Your task to perform on an android device: change notification settings in the gmail app Image 0: 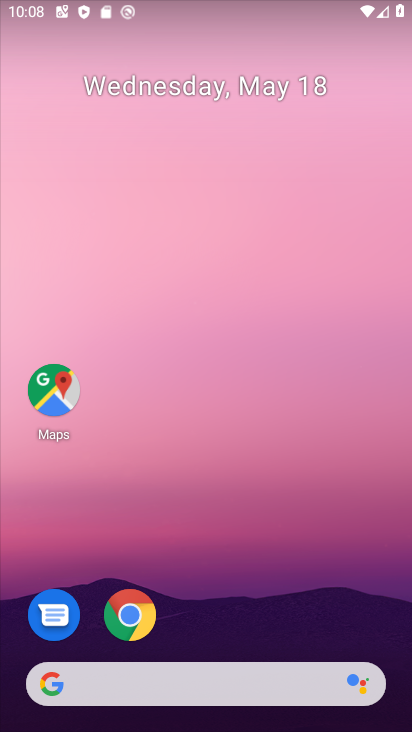
Step 0: drag from (254, 608) to (333, 108)
Your task to perform on an android device: change notification settings in the gmail app Image 1: 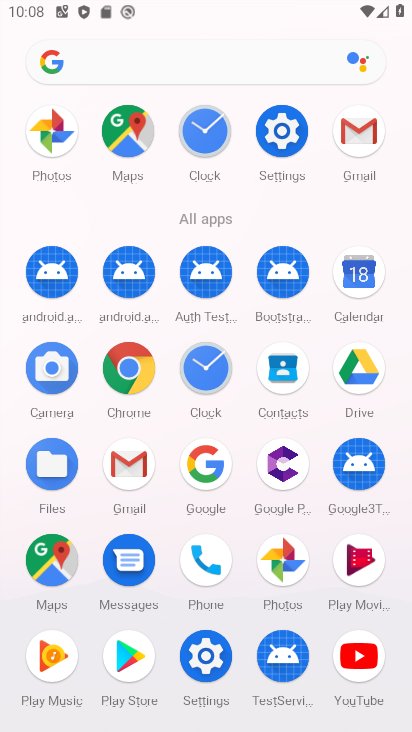
Step 1: click (363, 135)
Your task to perform on an android device: change notification settings in the gmail app Image 2: 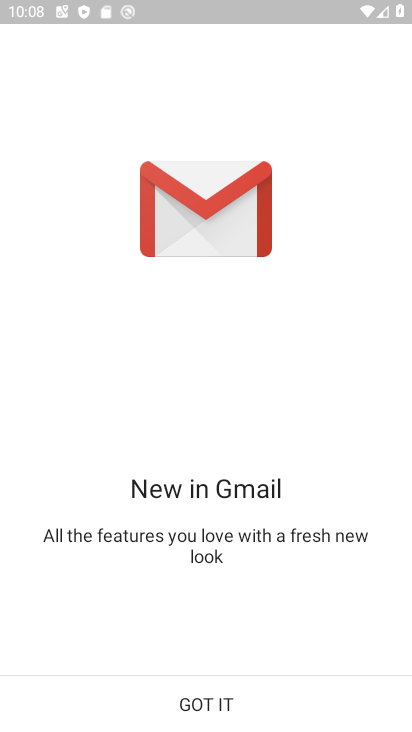
Step 2: click (292, 711)
Your task to perform on an android device: change notification settings in the gmail app Image 3: 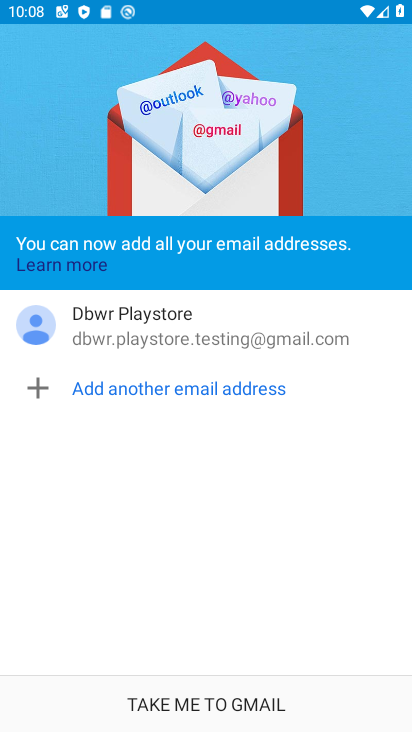
Step 3: click (251, 699)
Your task to perform on an android device: change notification settings in the gmail app Image 4: 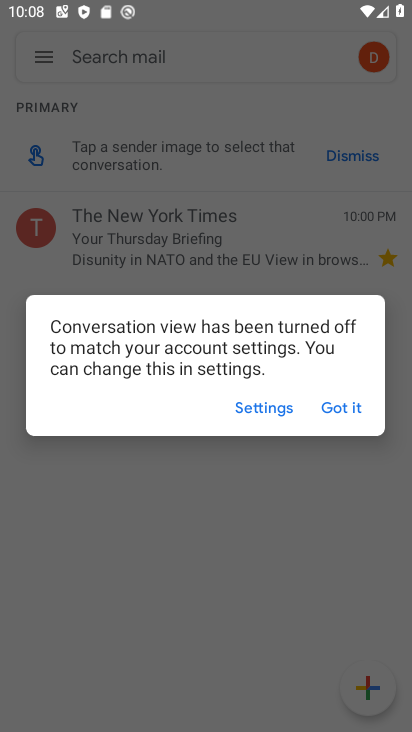
Step 4: click (356, 397)
Your task to perform on an android device: change notification settings in the gmail app Image 5: 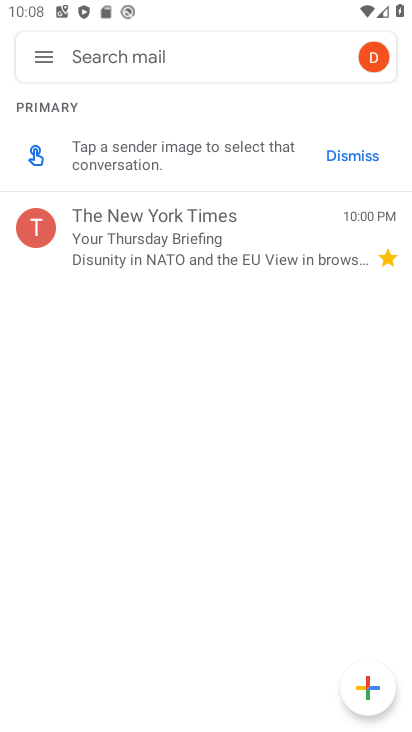
Step 5: click (54, 62)
Your task to perform on an android device: change notification settings in the gmail app Image 6: 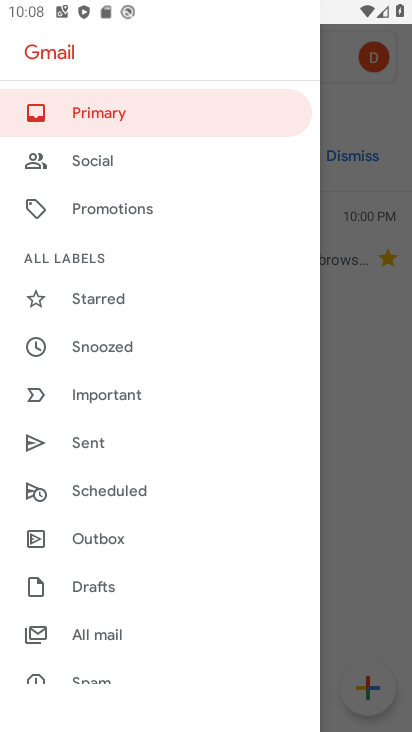
Step 6: drag from (103, 629) to (238, 144)
Your task to perform on an android device: change notification settings in the gmail app Image 7: 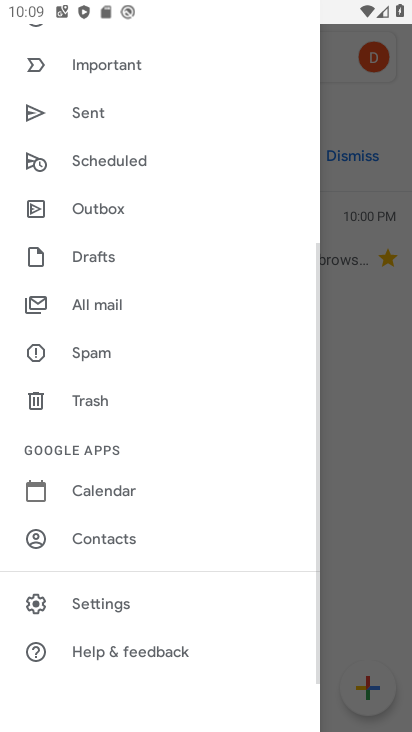
Step 7: click (135, 609)
Your task to perform on an android device: change notification settings in the gmail app Image 8: 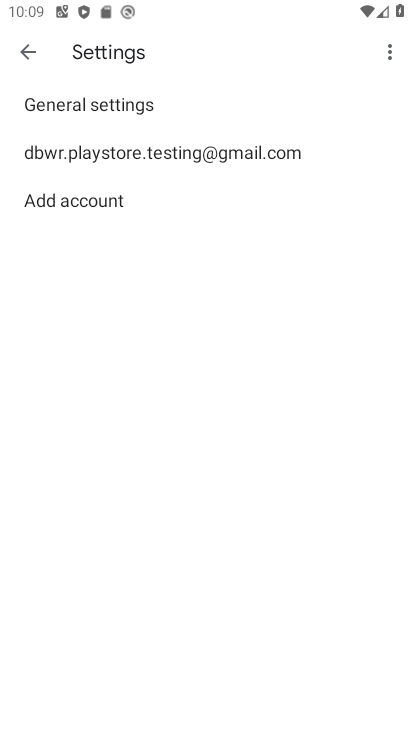
Step 8: click (182, 169)
Your task to perform on an android device: change notification settings in the gmail app Image 9: 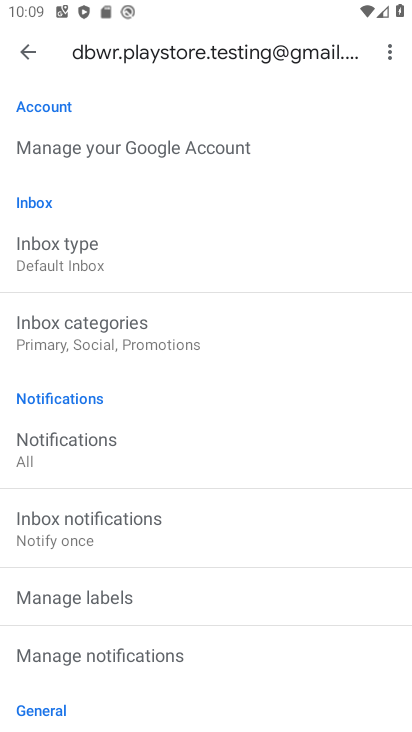
Step 9: click (66, 443)
Your task to perform on an android device: change notification settings in the gmail app Image 10: 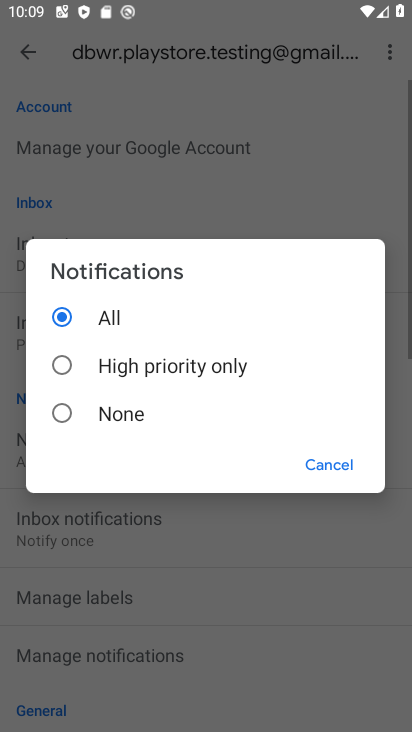
Step 10: click (167, 374)
Your task to perform on an android device: change notification settings in the gmail app Image 11: 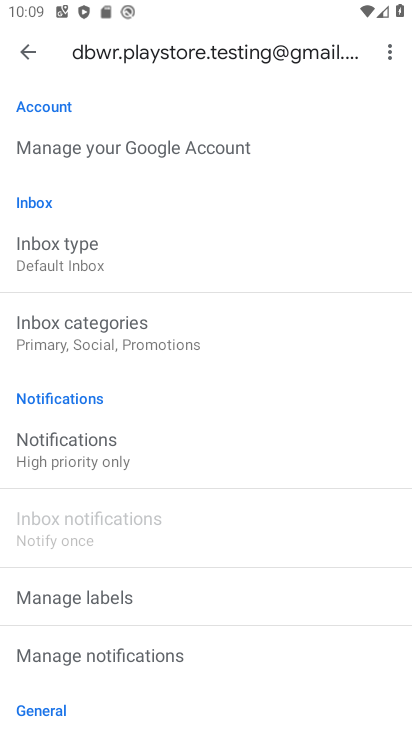
Step 11: task complete